Your task to perform on an android device: See recent photos Image 0: 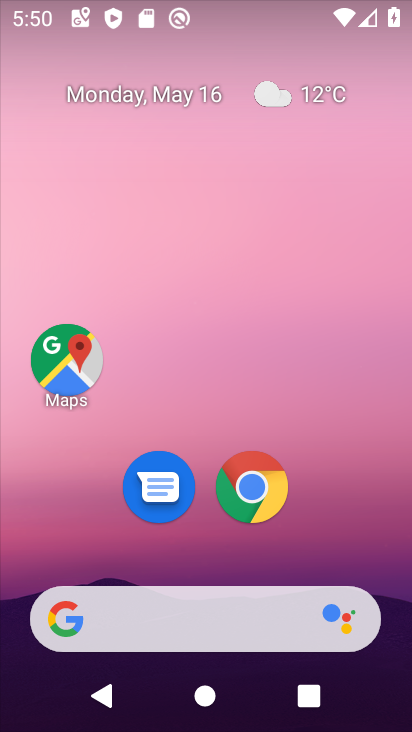
Step 0: drag from (332, 517) to (251, 61)
Your task to perform on an android device: See recent photos Image 1: 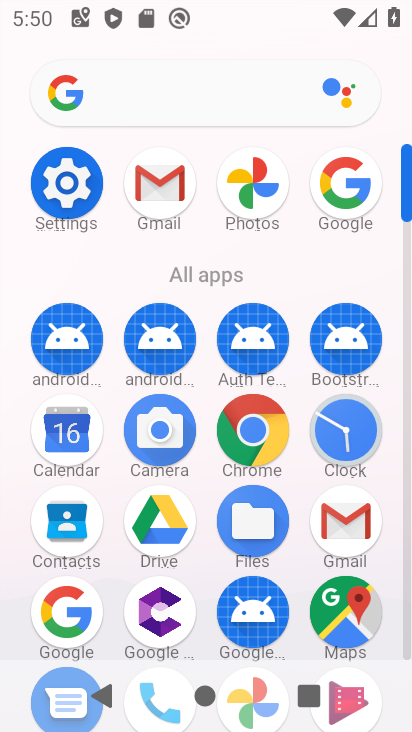
Step 1: drag from (310, 562) to (325, 126)
Your task to perform on an android device: See recent photos Image 2: 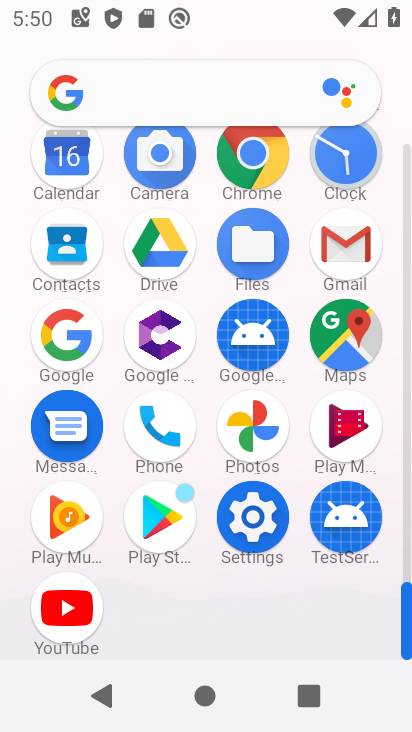
Step 2: click (265, 421)
Your task to perform on an android device: See recent photos Image 3: 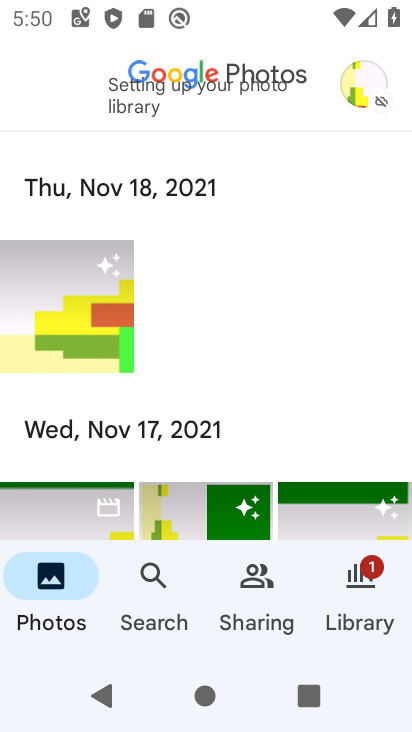
Step 3: task complete